Your task to perform on an android device: Go to display settings Image 0: 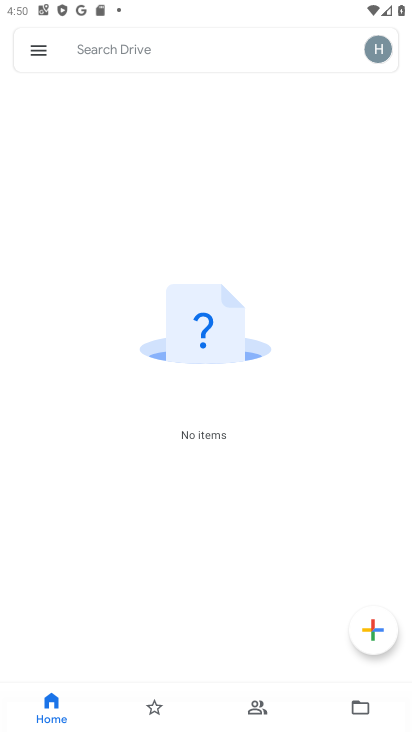
Step 0: press home button
Your task to perform on an android device: Go to display settings Image 1: 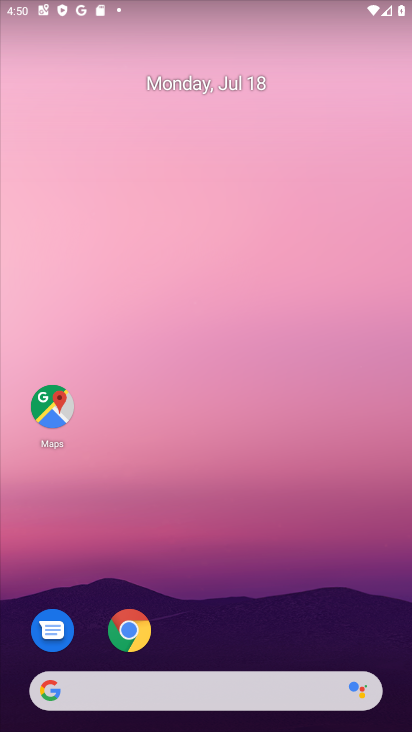
Step 1: drag from (209, 662) to (266, 66)
Your task to perform on an android device: Go to display settings Image 2: 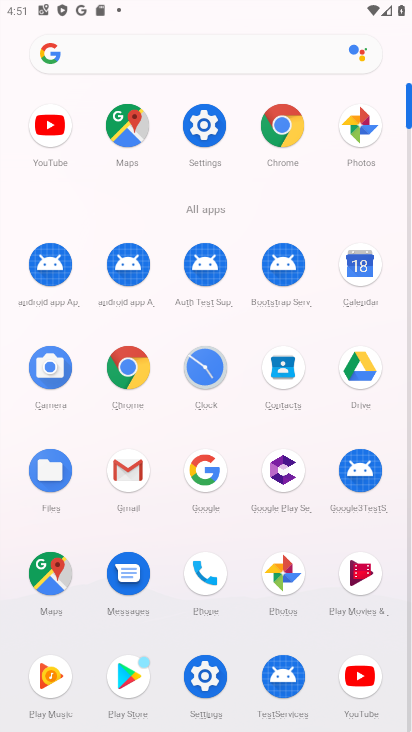
Step 2: click (191, 118)
Your task to perform on an android device: Go to display settings Image 3: 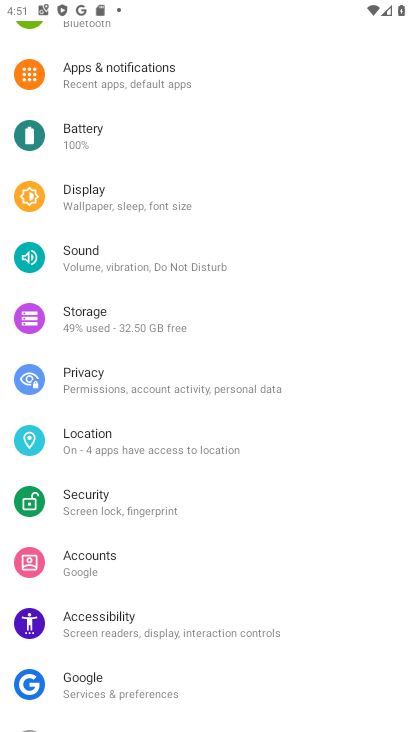
Step 3: click (124, 183)
Your task to perform on an android device: Go to display settings Image 4: 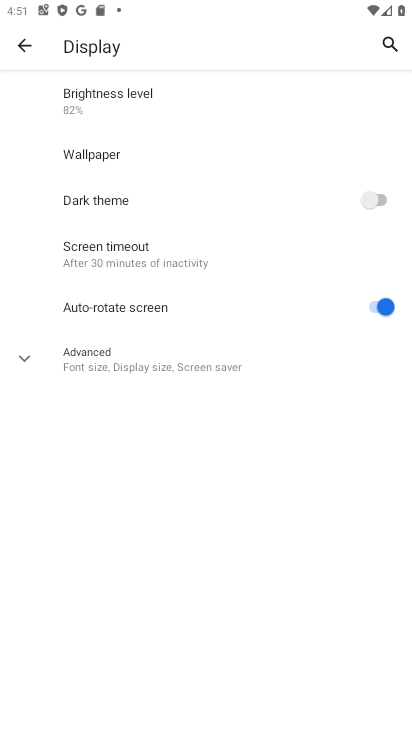
Step 4: click (25, 356)
Your task to perform on an android device: Go to display settings Image 5: 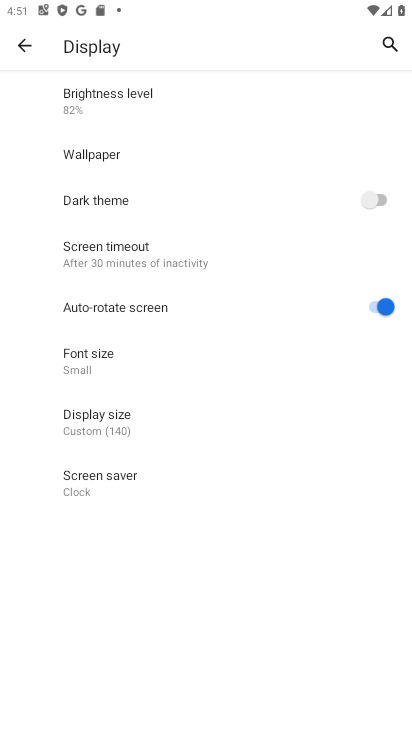
Step 5: task complete